Your task to perform on an android device: Show me recent news Image 0: 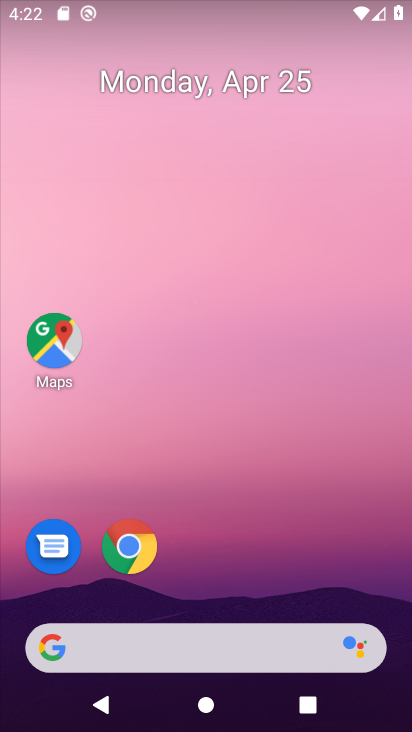
Step 0: drag from (306, 590) to (364, 23)
Your task to perform on an android device: Show me recent news Image 1: 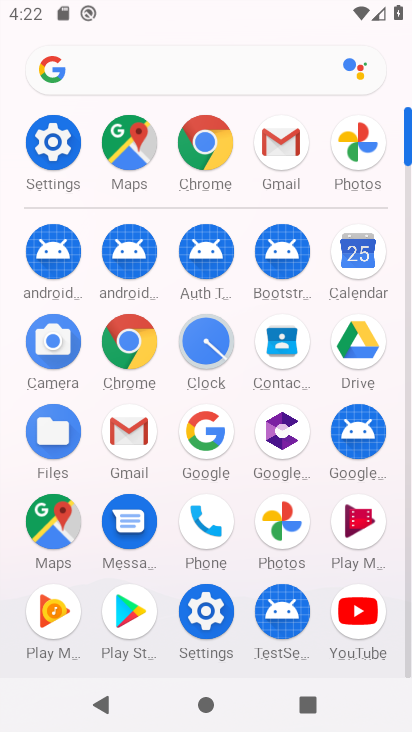
Step 1: click (102, 70)
Your task to perform on an android device: Show me recent news Image 2: 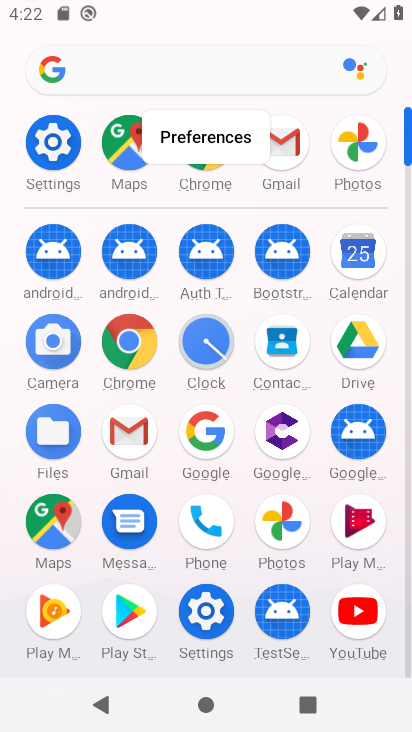
Step 2: click (103, 70)
Your task to perform on an android device: Show me recent news Image 3: 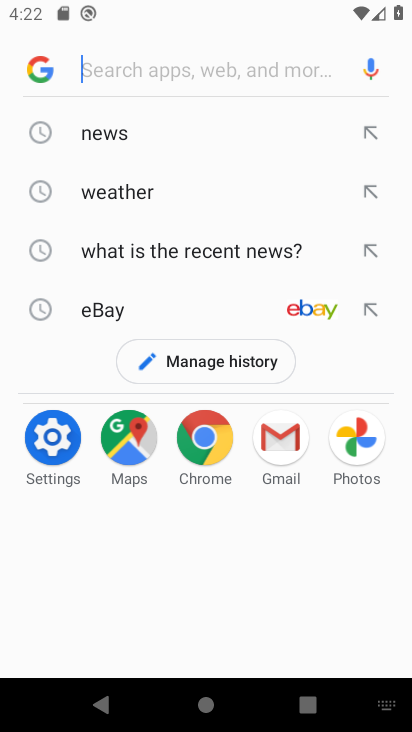
Step 3: type "recent news"
Your task to perform on an android device: Show me recent news Image 4: 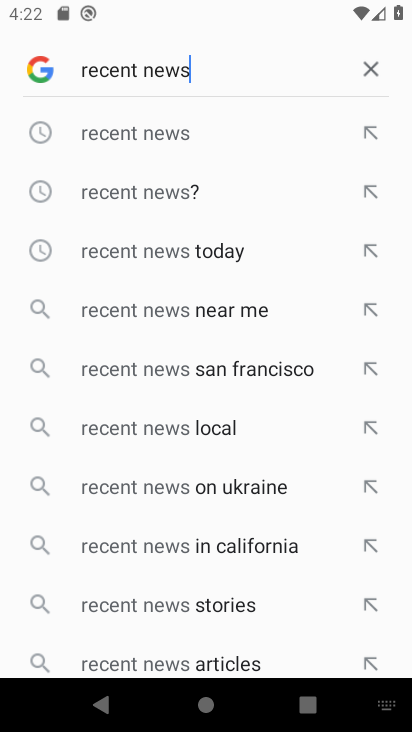
Step 4: click (143, 142)
Your task to perform on an android device: Show me recent news Image 5: 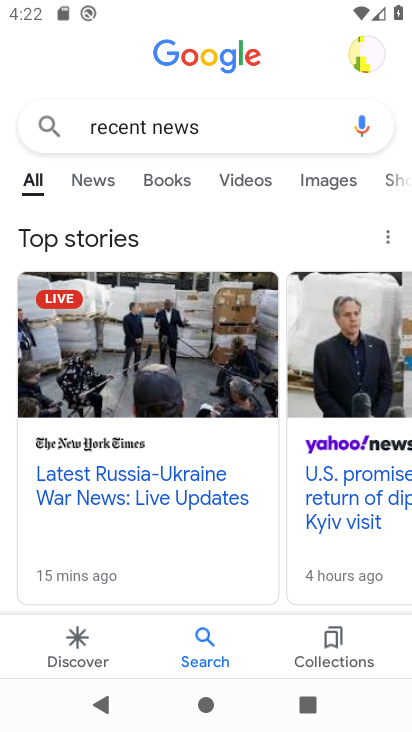
Step 5: click (112, 182)
Your task to perform on an android device: Show me recent news Image 6: 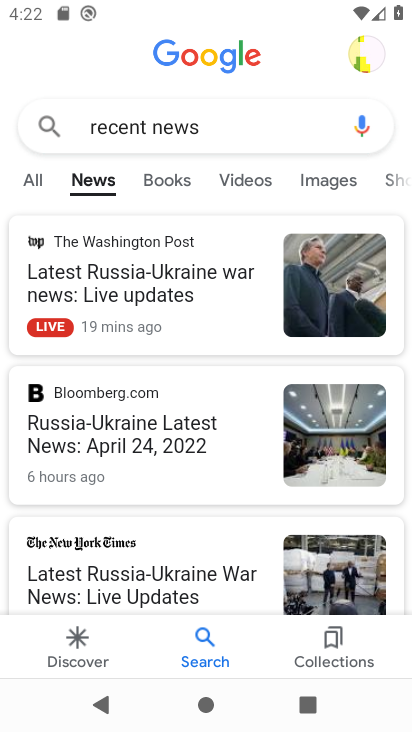
Step 6: task complete